Your task to perform on an android device: Open calendar and show me the third week of next month Image 0: 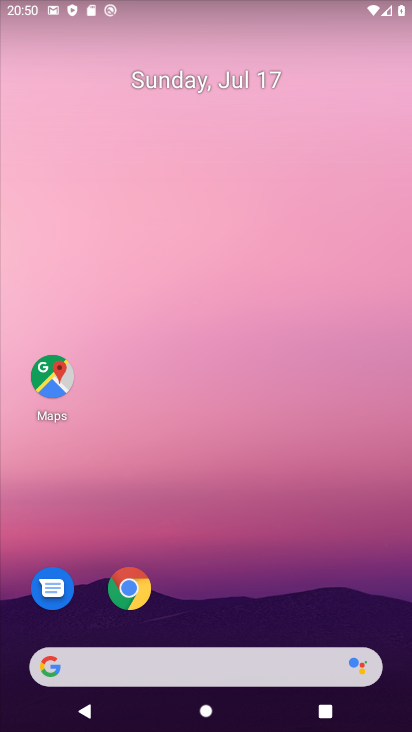
Step 0: press home button
Your task to perform on an android device: Open calendar and show me the third week of next month Image 1: 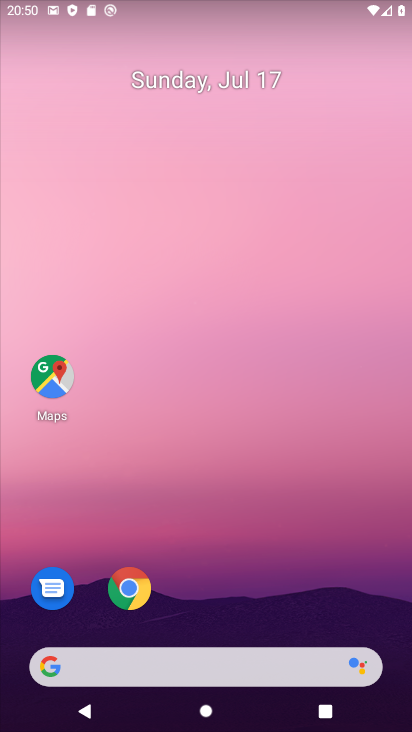
Step 1: drag from (265, 644) to (254, 114)
Your task to perform on an android device: Open calendar and show me the third week of next month Image 2: 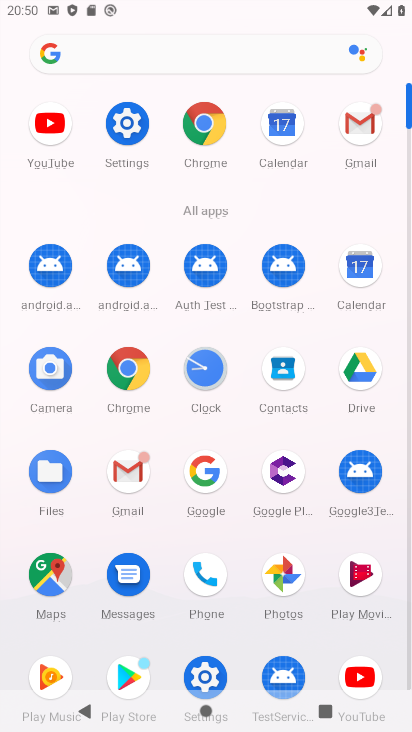
Step 2: click (352, 284)
Your task to perform on an android device: Open calendar and show me the third week of next month Image 3: 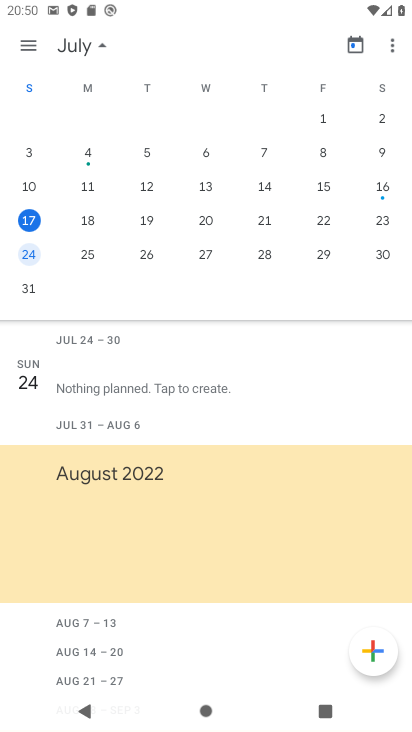
Step 3: drag from (338, 210) to (7, 330)
Your task to perform on an android device: Open calendar and show me the third week of next month Image 4: 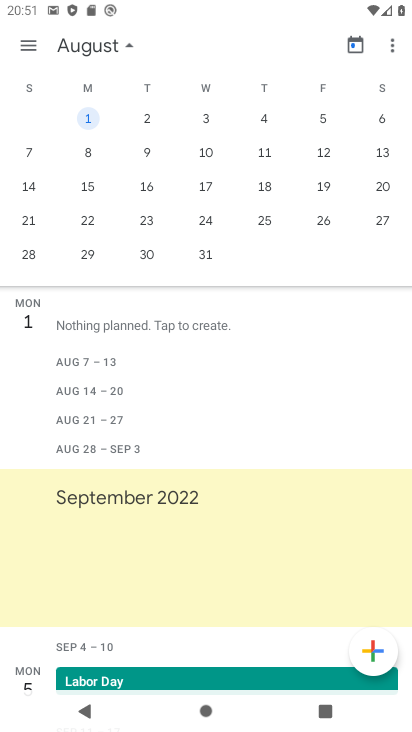
Step 4: click (93, 182)
Your task to perform on an android device: Open calendar and show me the third week of next month Image 5: 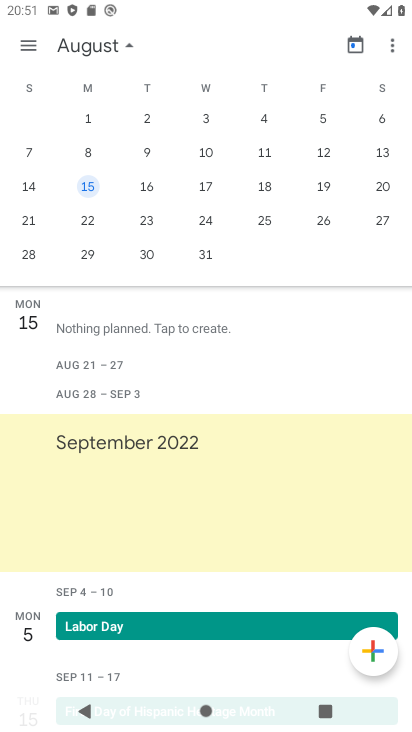
Step 5: task complete